Your task to perform on an android device: turn notification dots off Image 0: 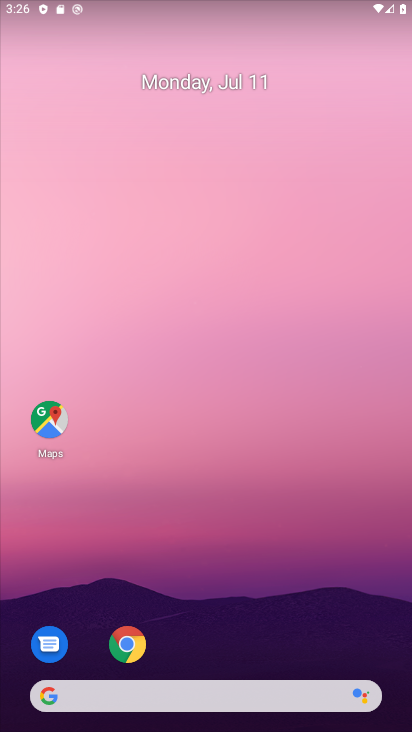
Step 0: drag from (202, 676) to (248, 259)
Your task to perform on an android device: turn notification dots off Image 1: 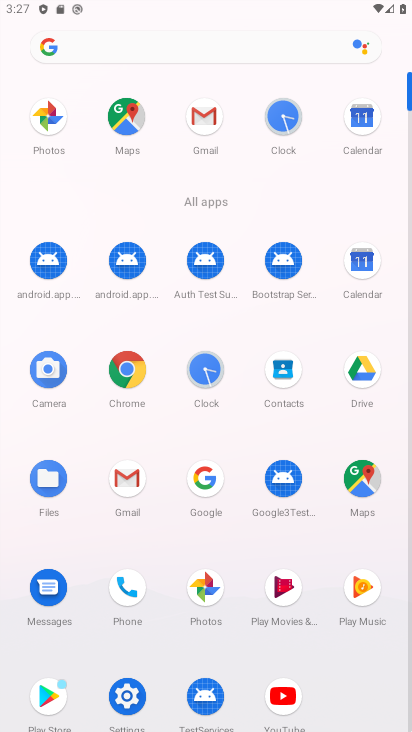
Step 1: click (133, 687)
Your task to perform on an android device: turn notification dots off Image 2: 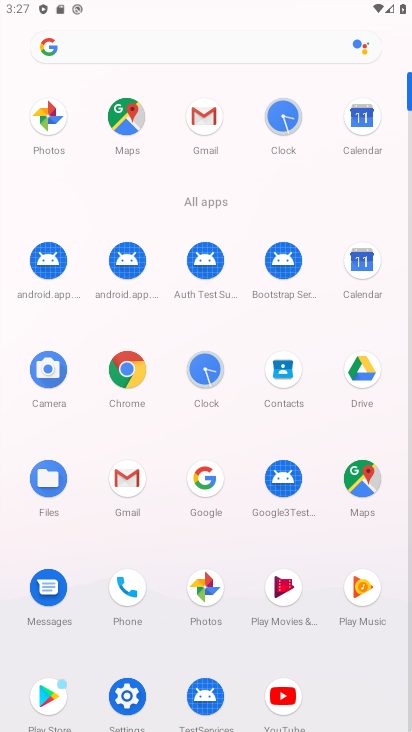
Step 2: click (124, 706)
Your task to perform on an android device: turn notification dots off Image 3: 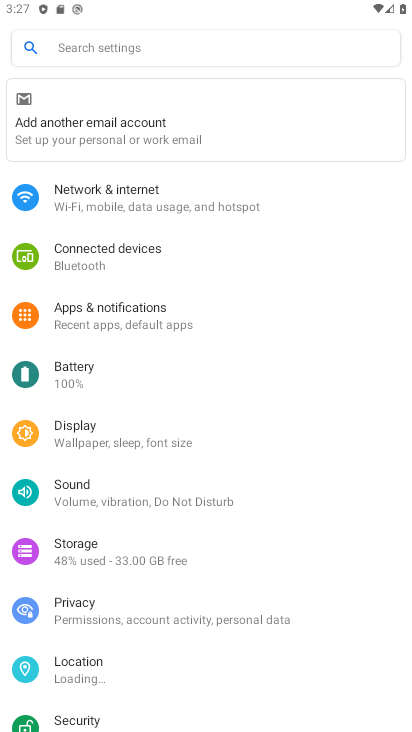
Step 3: click (145, 327)
Your task to perform on an android device: turn notification dots off Image 4: 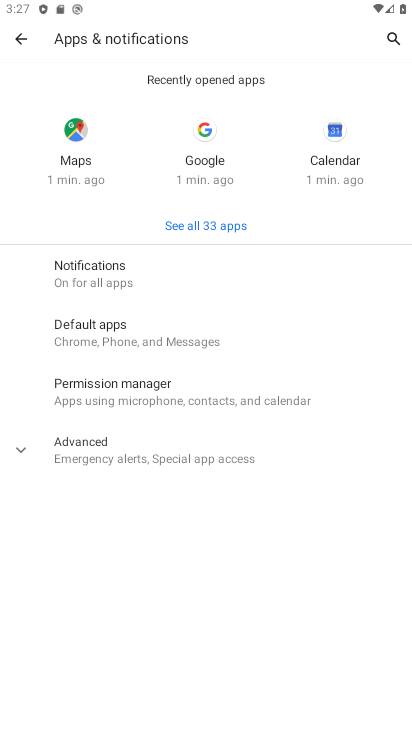
Step 4: click (134, 279)
Your task to perform on an android device: turn notification dots off Image 5: 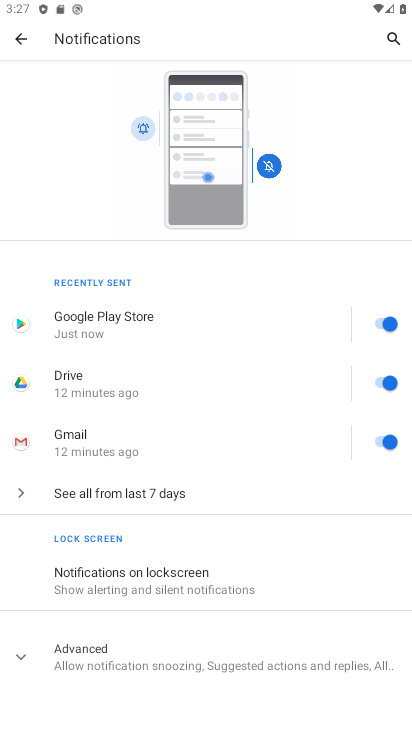
Step 5: drag from (153, 544) to (357, 63)
Your task to perform on an android device: turn notification dots off Image 6: 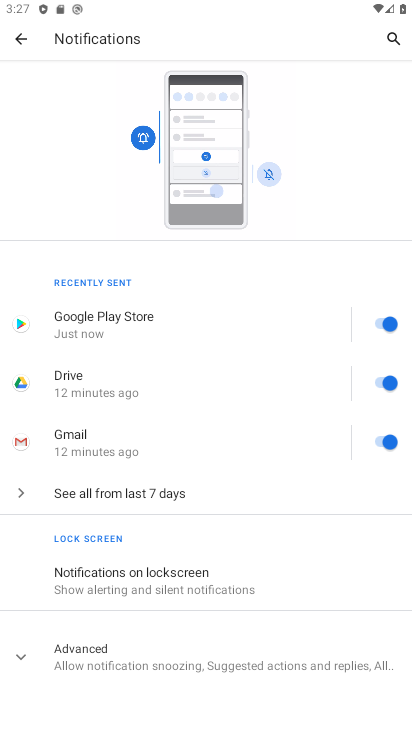
Step 6: click (144, 643)
Your task to perform on an android device: turn notification dots off Image 7: 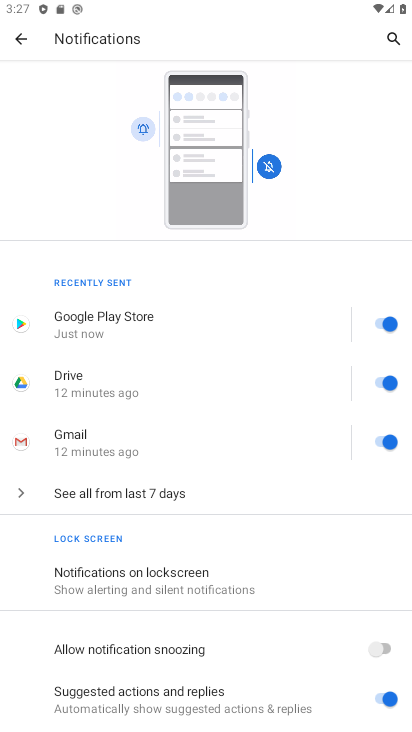
Step 7: drag from (149, 625) to (249, 289)
Your task to perform on an android device: turn notification dots off Image 8: 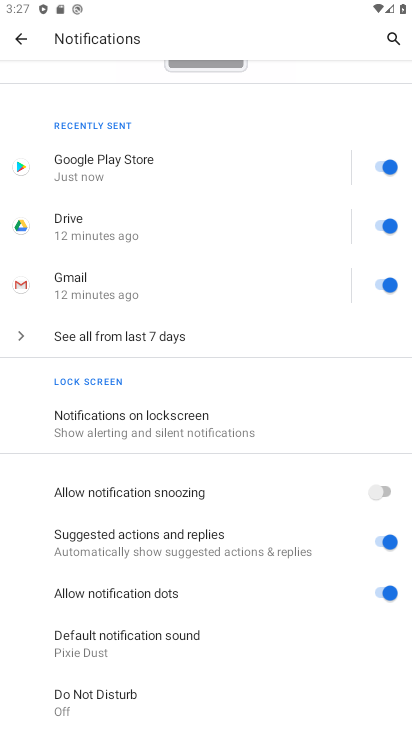
Step 8: click (373, 595)
Your task to perform on an android device: turn notification dots off Image 9: 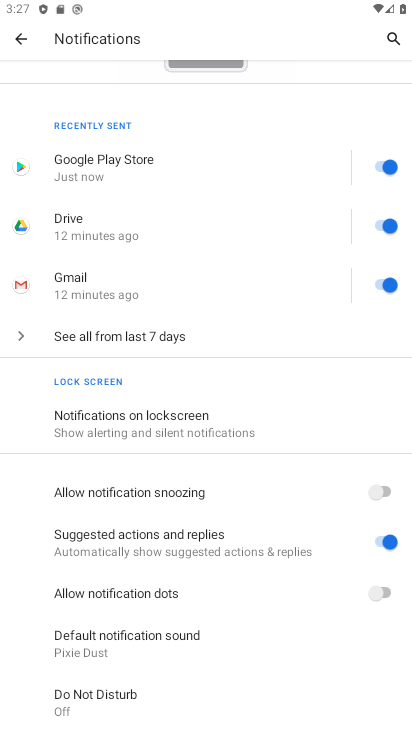
Step 9: task complete